Your task to perform on an android device: turn pop-ups on in chrome Image 0: 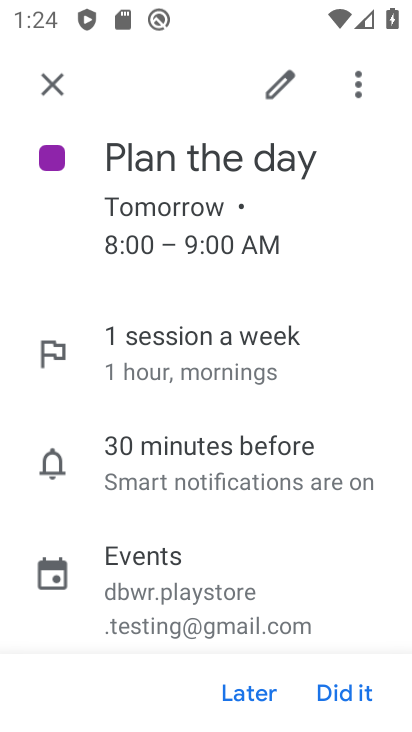
Step 0: press home button
Your task to perform on an android device: turn pop-ups on in chrome Image 1: 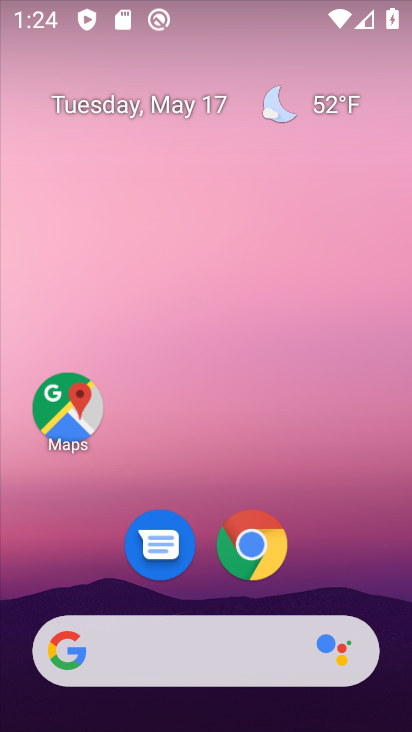
Step 1: drag from (351, 560) to (354, 152)
Your task to perform on an android device: turn pop-ups on in chrome Image 2: 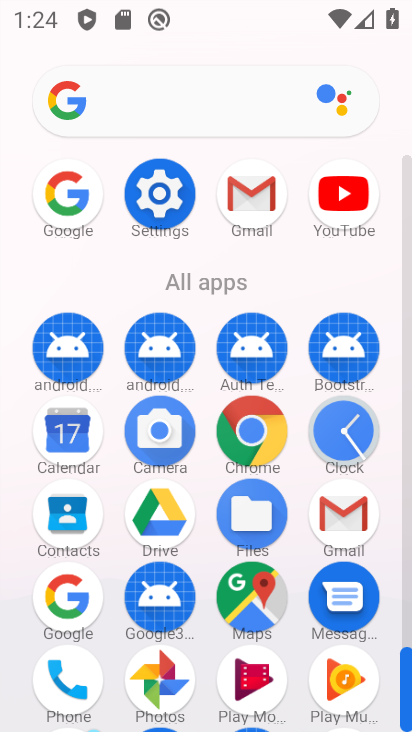
Step 2: click (274, 439)
Your task to perform on an android device: turn pop-ups on in chrome Image 3: 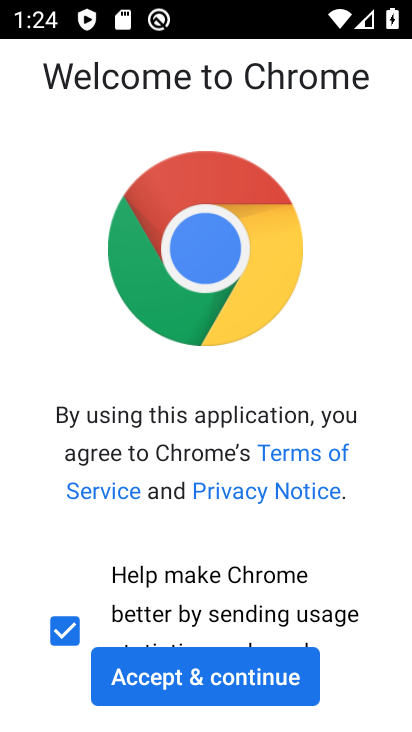
Step 3: click (226, 671)
Your task to perform on an android device: turn pop-ups on in chrome Image 4: 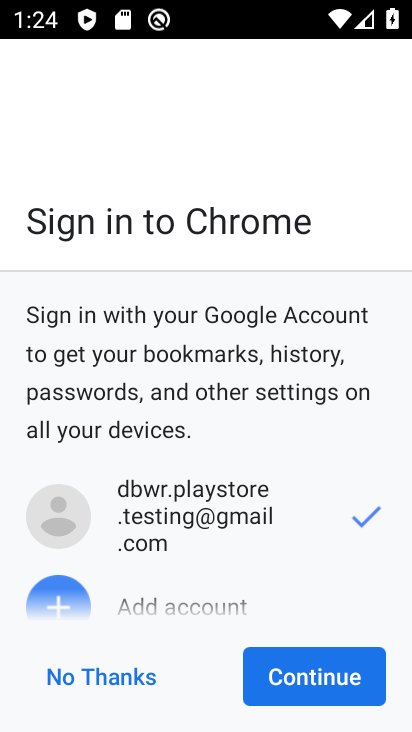
Step 4: click (257, 669)
Your task to perform on an android device: turn pop-ups on in chrome Image 5: 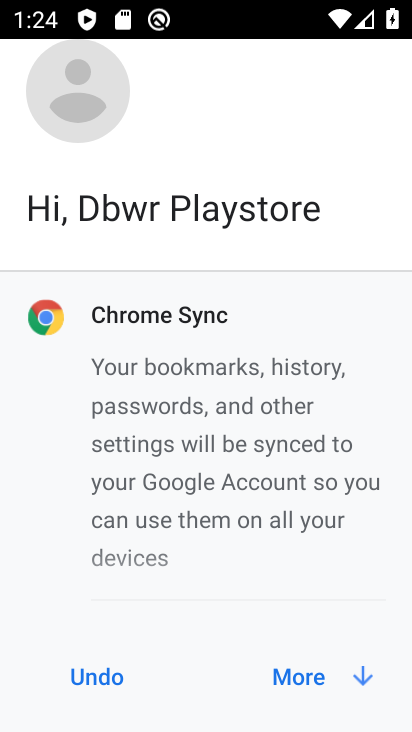
Step 5: click (279, 678)
Your task to perform on an android device: turn pop-ups on in chrome Image 6: 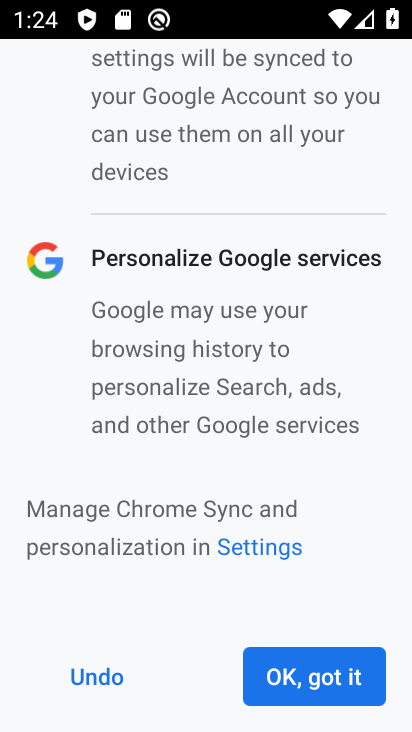
Step 6: click (279, 678)
Your task to perform on an android device: turn pop-ups on in chrome Image 7: 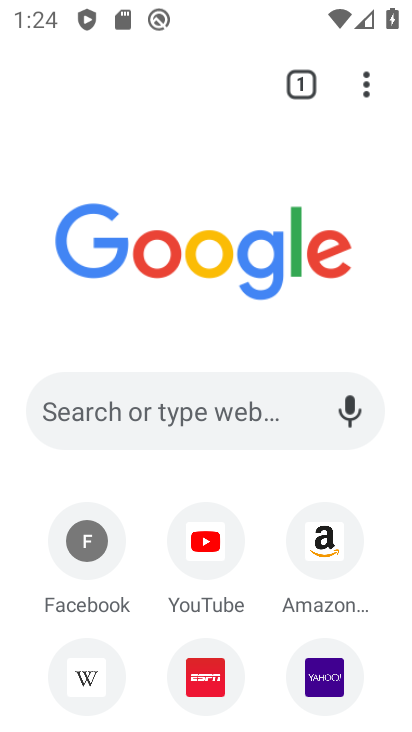
Step 7: click (368, 95)
Your task to perform on an android device: turn pop-ups on in chrome Image 8: 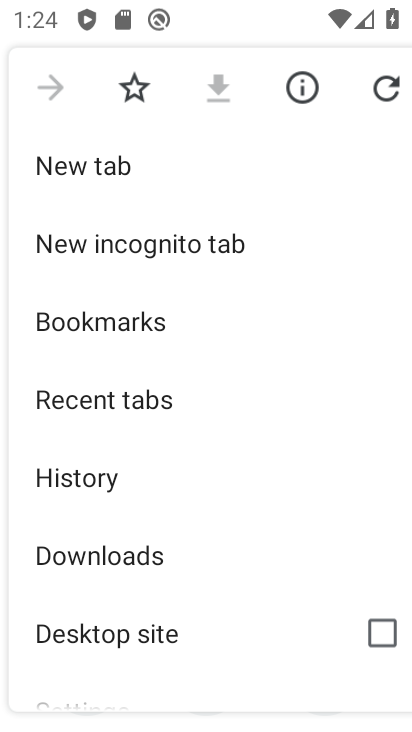
Step 8: drag from (321, 510) to (343, 410)
Your task to perform on an android device: turn pop-ups on in chrome Image 9: 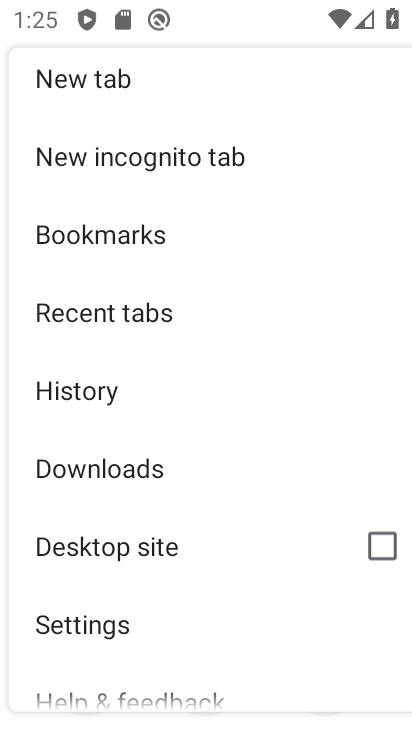
Step 9: drag from (304, 533) to (309, 432)
Your task to perform on an android device: turn pop-ups on in chrome Image 10: 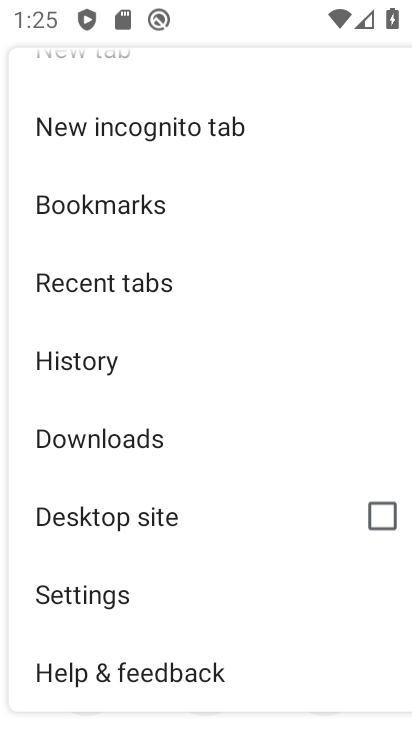
Step 10: drag from (283, 578) to (296, 452)
Your task to perform on an android device: turn pop-ups on in chrome Image 11: 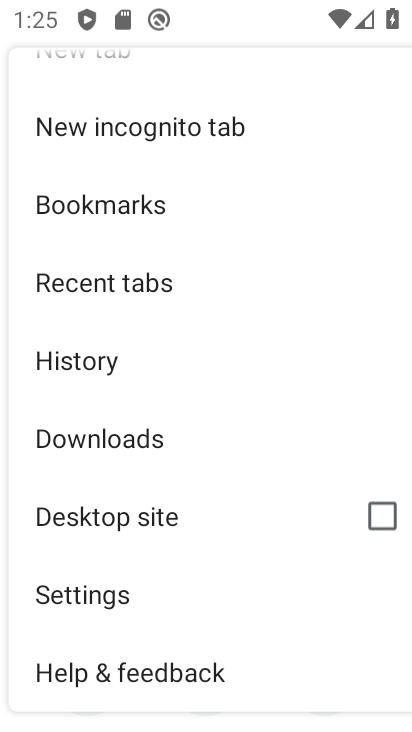
Step 11: click (101, 599)
Your task to perform on an android device: turn pop-ups on in chrome Image 12: 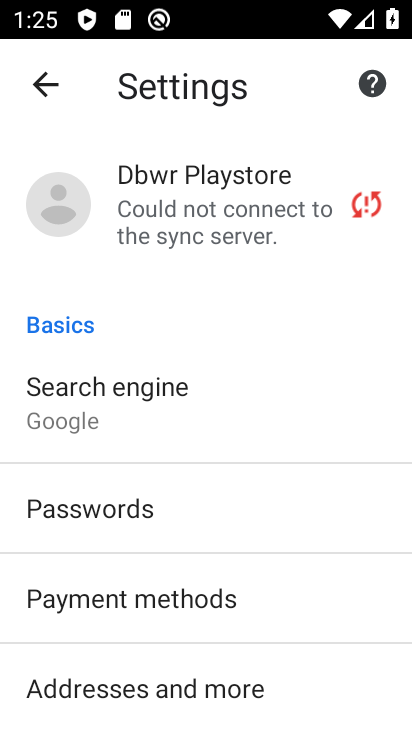
Step 12: drag from (329, 592) to (337, 488)
Your task to perform on an android device: turn pop-ups on in chrome Image 13: 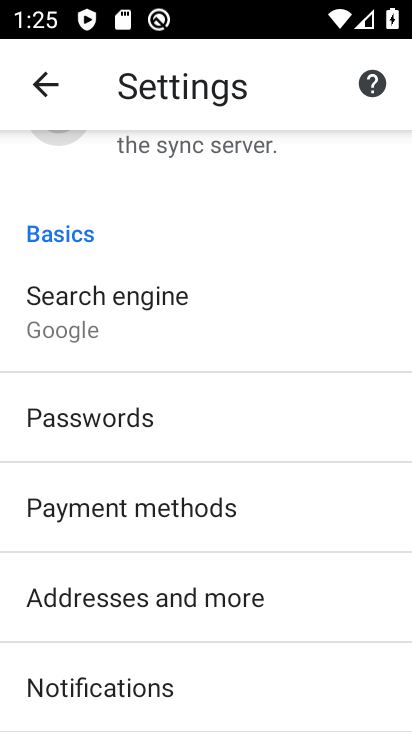
Step 13: drag from (323, 629) to (329, 511)
Your task to perform on an android device: turn pop-ups on in chrome Image 14: 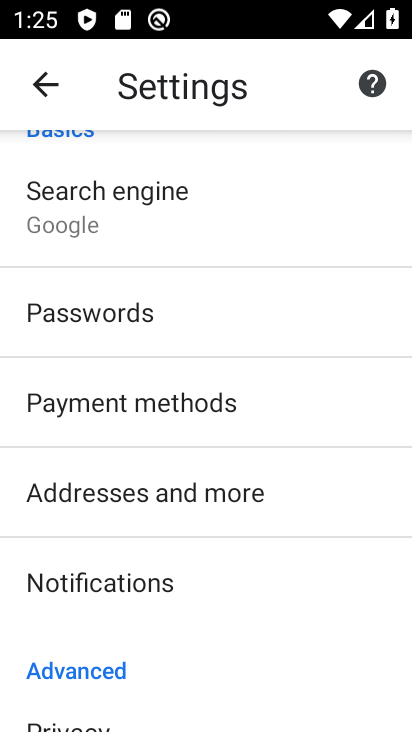
Step 14: drag from (329, 651) to (338, 541)
Your task to perform on an android device: turn pop-ups on in chrome Image 15: 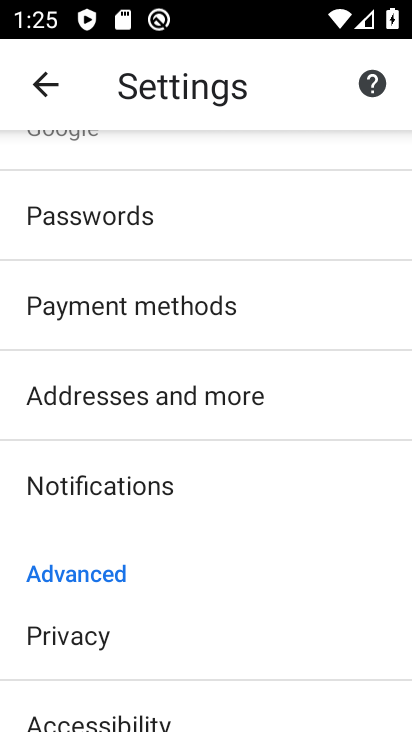
Step 15: drag from (324, 660) to (316, 500)
Your task to perform on an android device: turn pop-ups on in chrome Image 16: 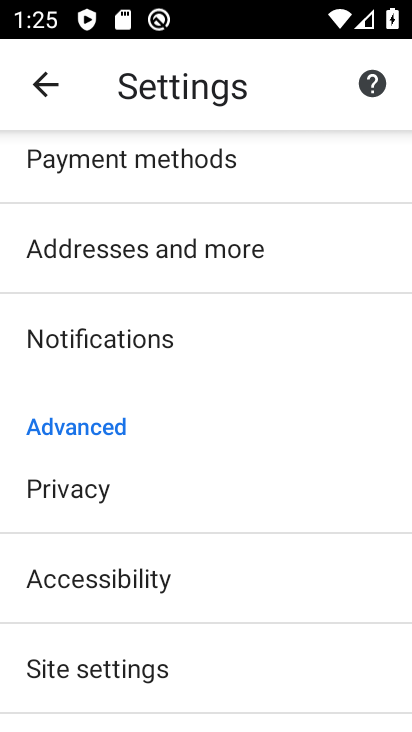
Step 16: drag from (306, 649) to (315, 537)
Your task to perform on an android device: turn pop-ups on in chrome Image 17: 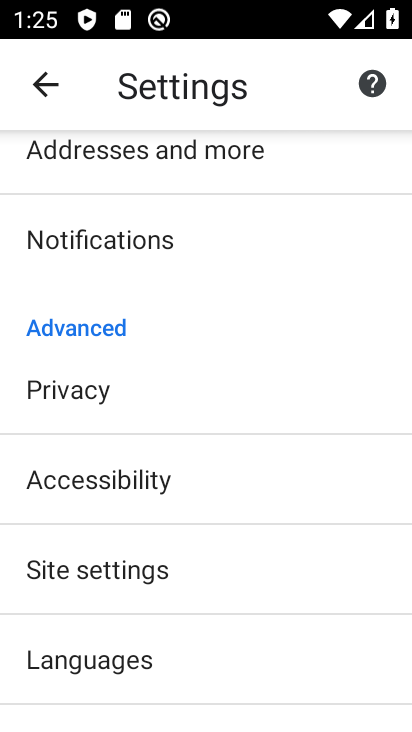
Step 17: drag from (305, 674) to (311, 563)
Your task to perform on an android device: turn pop-ups on in chrome Image 18: 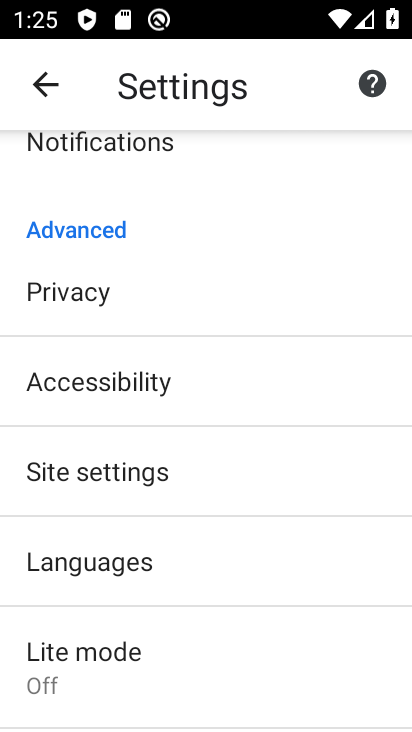
Step 18: drag from (317, 679) to (313, 587)
Your task to perform on an android device: turn pop-ups on in chrome Image 19: 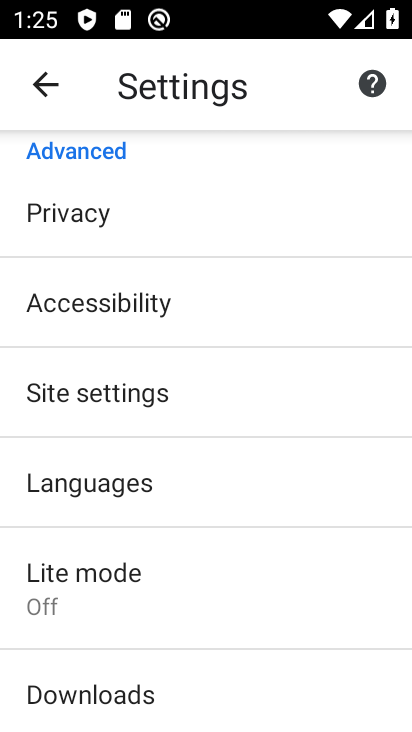
Step 19: drag from (322, 645) to (329, 537)
Your task to perform on an android device: turn pop-ups on in chrome Image 20: 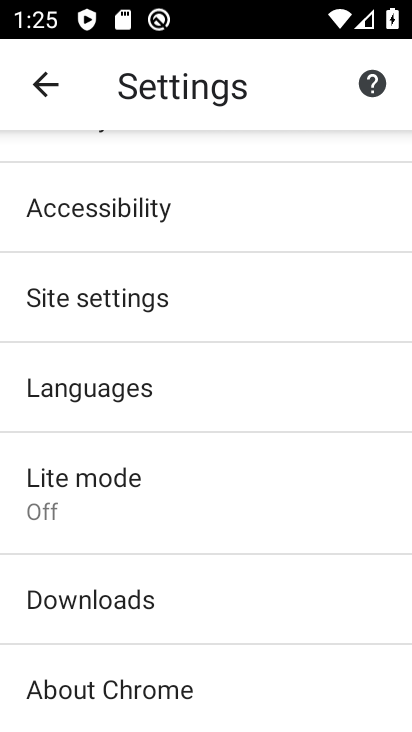
Step 20: click (293, 317)
Your task to perform on an android device: turn pop-ups on in chrome Image 21: 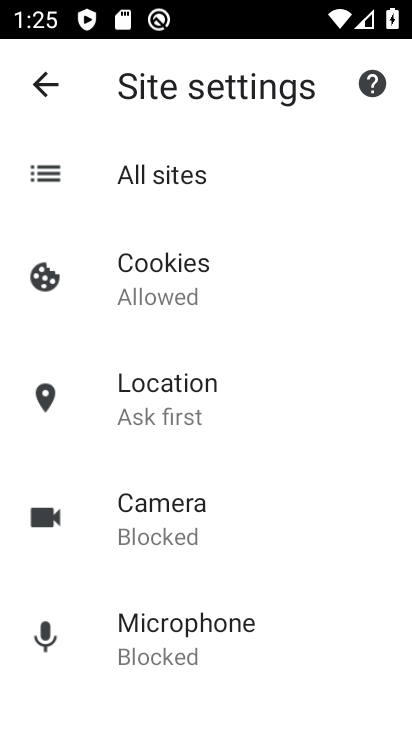
Step 21: drag from (313, 470) to (313, 432)
Your task to perform on an android device: turn pop-ups on in chrome Image 22: 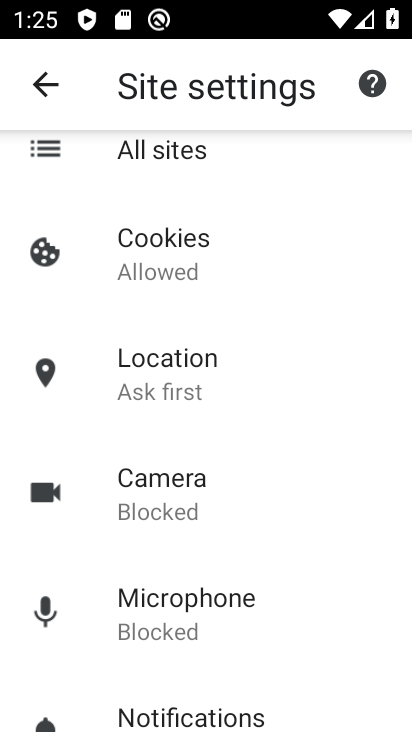
Step 22: drag from (314, 568) to (316, 451)
Your task to perform on an android device: turn pop-ups on in chrome Image 23: 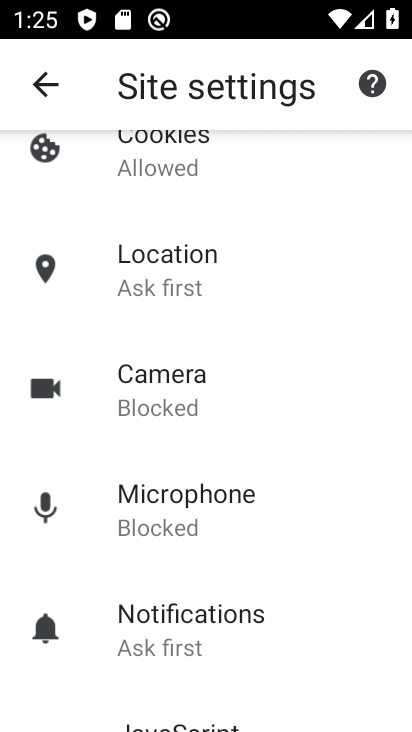
Step 23: drag from (320, 597) to (324, 475)
Your task to perform on an android device: turn pop-ups on in chrome Image 24: 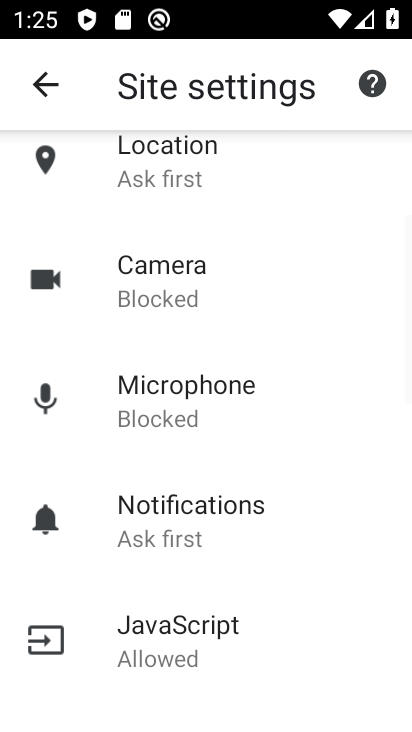
Step 24: drag from (318, 631) to (323, 514)
Your task to perform on an android device: turn pop-ups on in chrome Image 25: 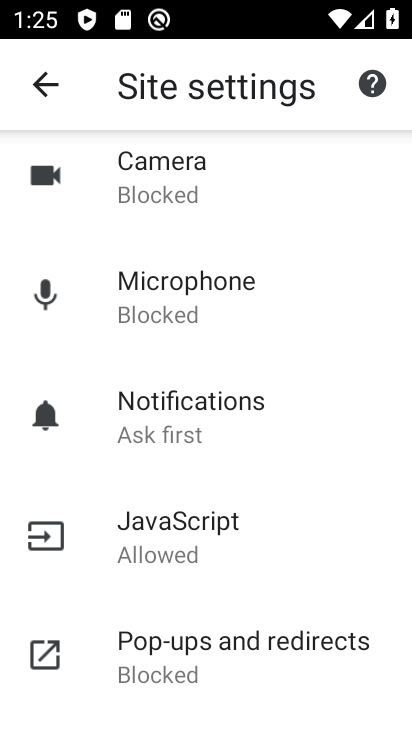
Step 25: drag from (294, 647) to (292, 521)
Your task to perform on an android device: turn pop-ups on in chrome Image 26: 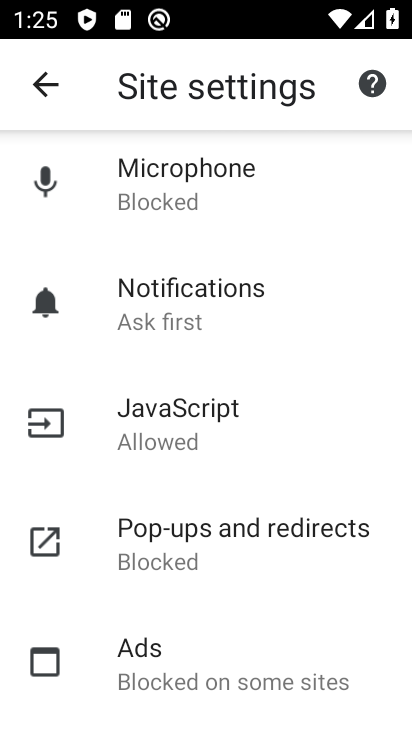
Step 26: drag from (278, 635) to (277, 530)
Your task to perform on an android device: turn pop-ups on in chrome Image 27: 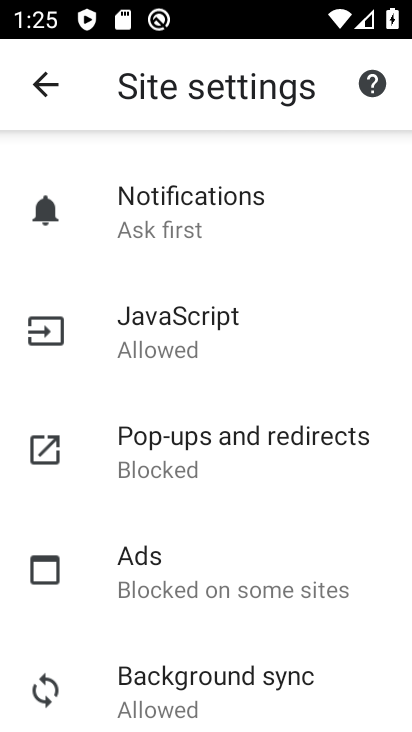
Step 27: drag from (263, 635) to (268, 559)
Your task to perform on an android device: turn pop-ups on in chrome Image 28: 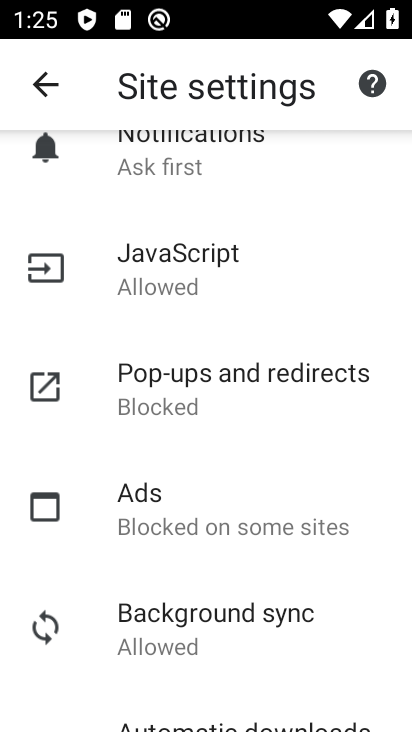
Step 28: click (248, 381)
Your task to perform on an android device: turn pop-ups on in chrome Image 29: 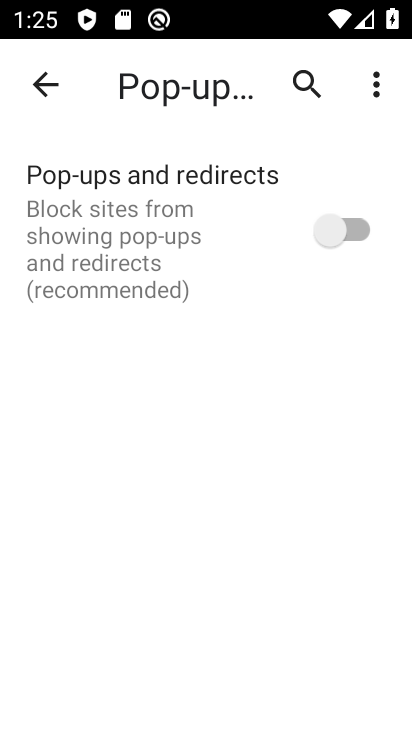
Step 29: click (315, 237)
Your task to perform on an android device: turn pop-ups on in chrome Image 30: 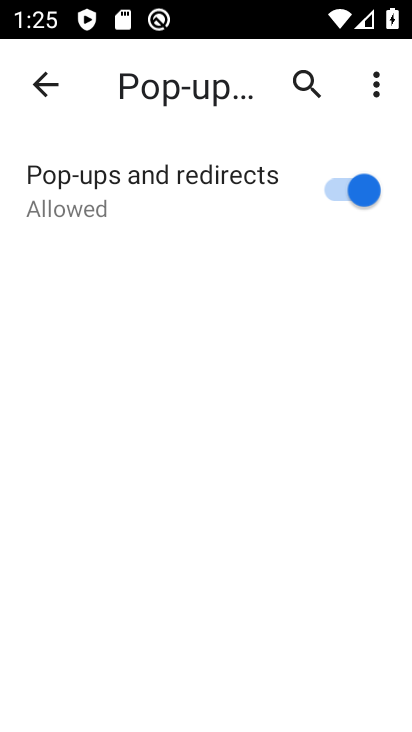
Step 30: task complete